Your task to perform on an android device: move an email to a new category in the gmail app Image 0: 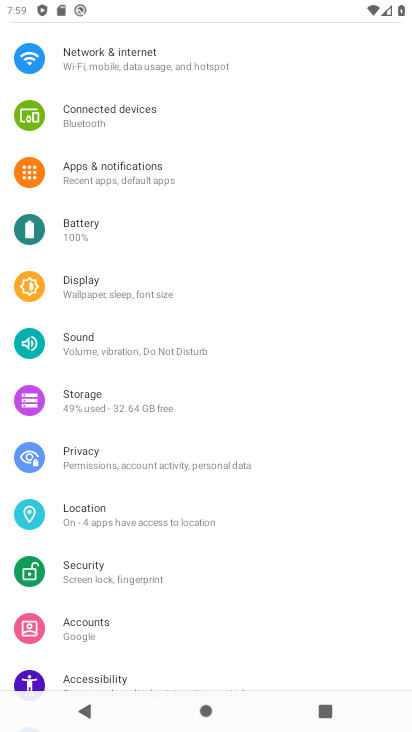
Step 0: press home button
Your task to perform on an android device: move an email to a new category in the gmail app Image 1: 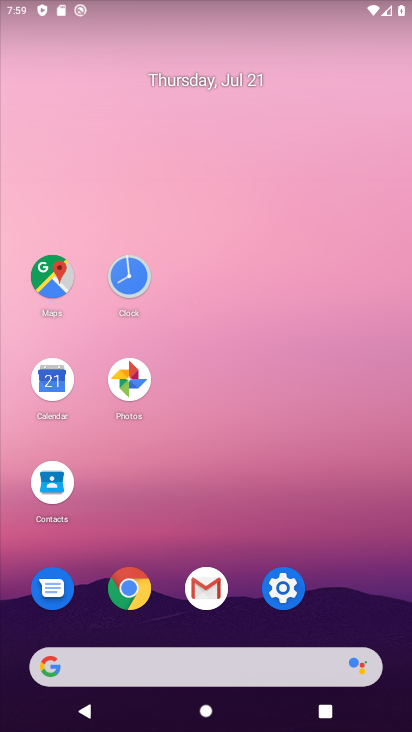
Step 1: click (203, 590)
Your task to perform on an android device: move an email to a new category in the gmail app Image 2: 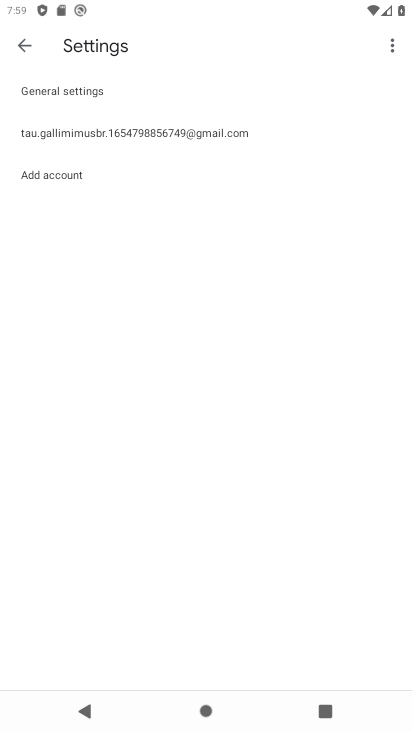
Step 2: click (25, 43)
Your task to perform on an android device: move an email to a new category in the gmail app Image 3: 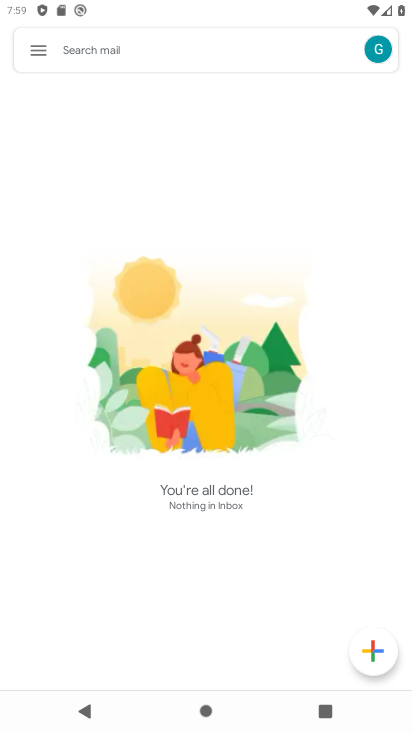
Step 3: click (38, 54)
Your task to perform on an android device: move an email to a new category in the gmail app Image 4: 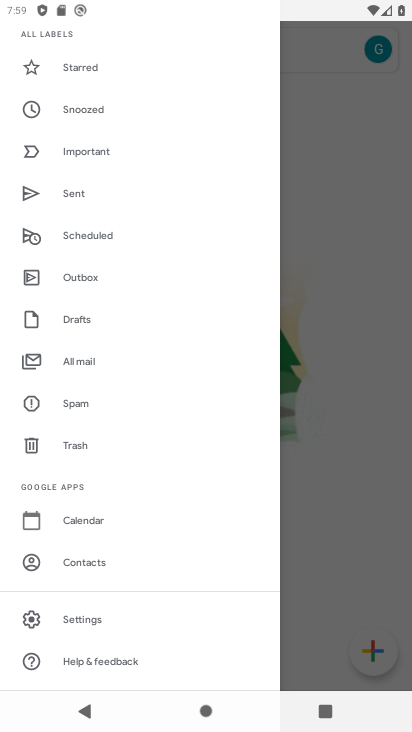
Step 4: click (64, 357)
Your task to perform on an android device: move an email to a new category in the gmail app Image 5: 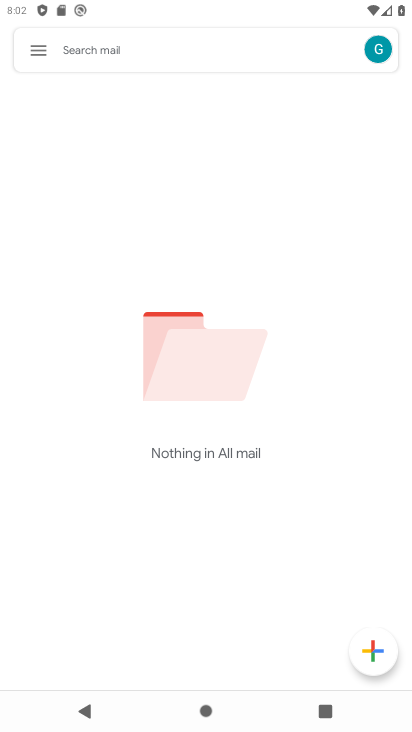
Step 5: task complete